Your task to perform on an android device: turn off location Image 0: 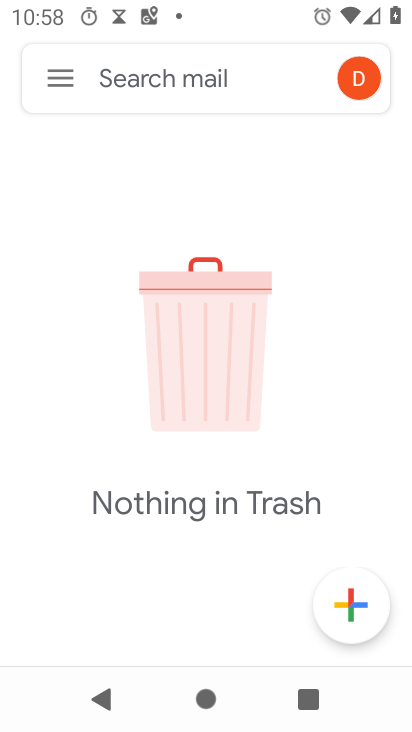
Step 0: click (397, 513)
Your task to perform on an android device: turn off location Image 1: 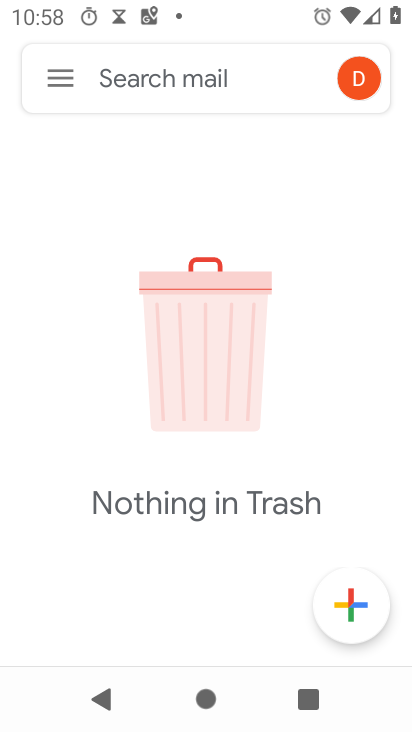
Step 1: press home button
Your task to perform on an android device: turn off location Image 2: 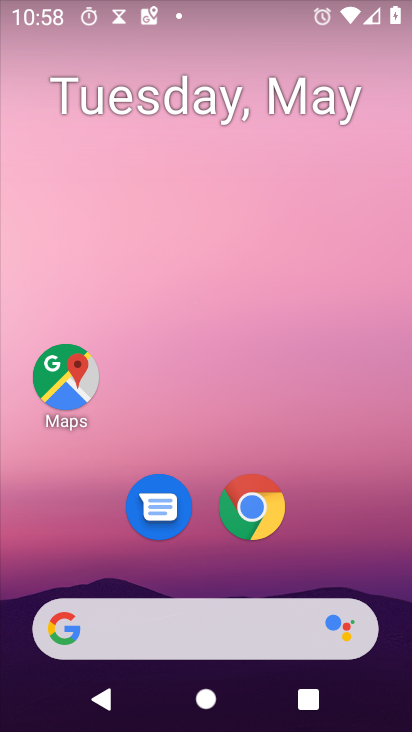
Step 2: drag from (31, 611) to (260, 162)
Your task to perform on an android device: turn off location Image 3: 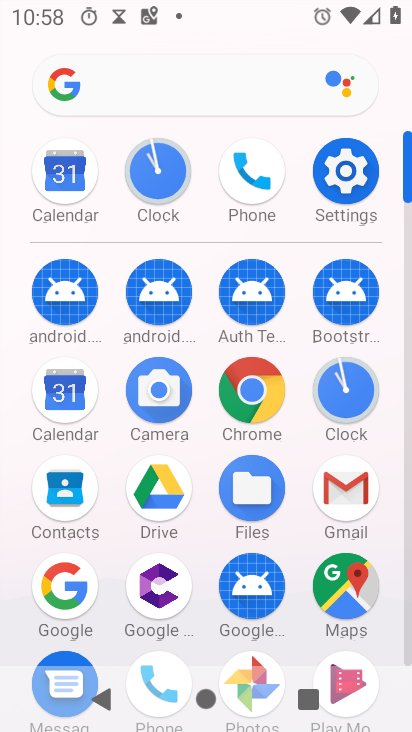
Step 3: click (354, 158)
Your task to perform on an android device: turn off location Image 4: 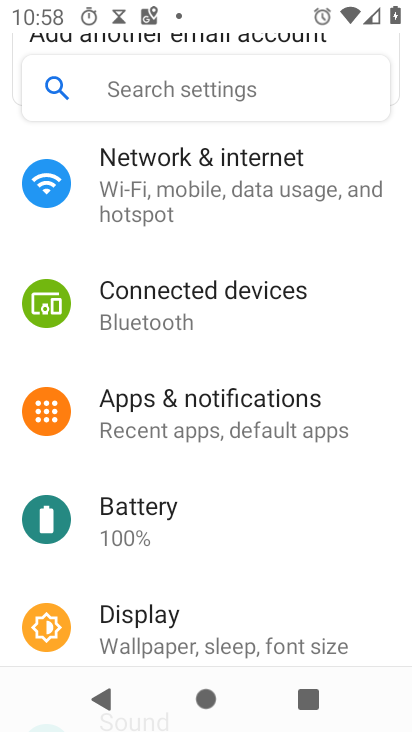
Step 4: drag from (2, 623) to (191, 154)
Your task to perform on an android device: turn off location Image 5: 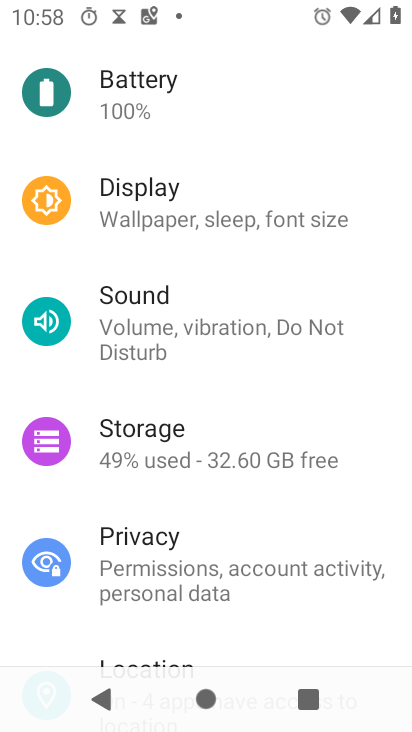
Step 5: drag from (1, 539) to (137, 332)
Your task to perform on an android device: turn off location Image 6: 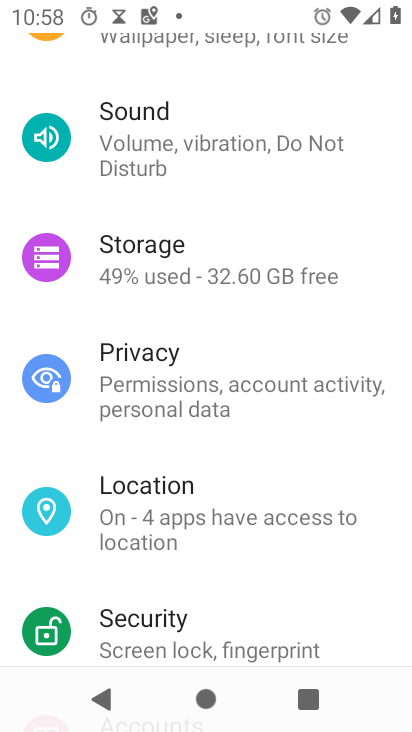
Step 6: click (127, 524)
Your task to perform on an android device: turn off location Image 7: 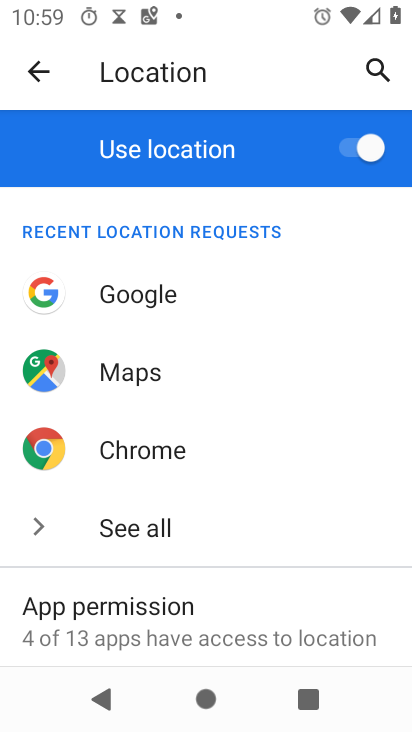
Step 7: click (368, 142)
Your task to perform on an android device: turn off location Image 8: 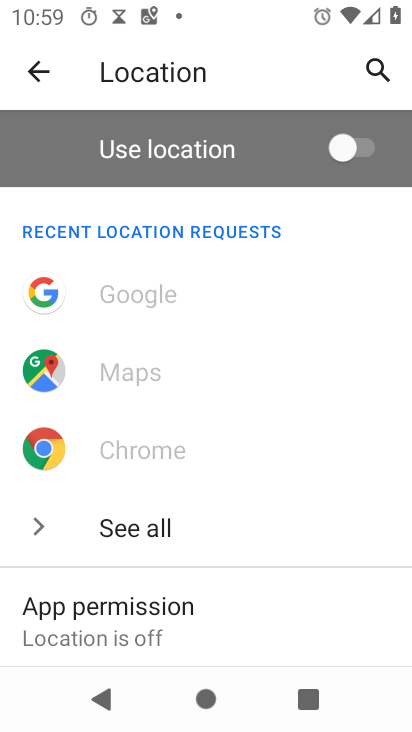
Step 8: task complete